Your task to perform on an android device: Go to Android settings Image 0: 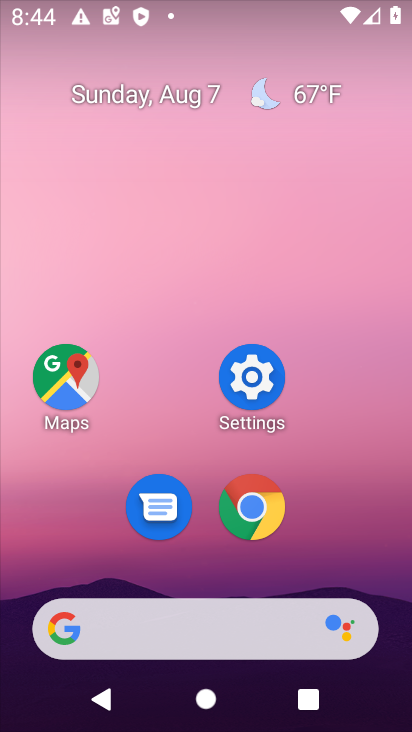
Step 0: press home button
Your task to perform on an android device: Go to Android settings Image 1: 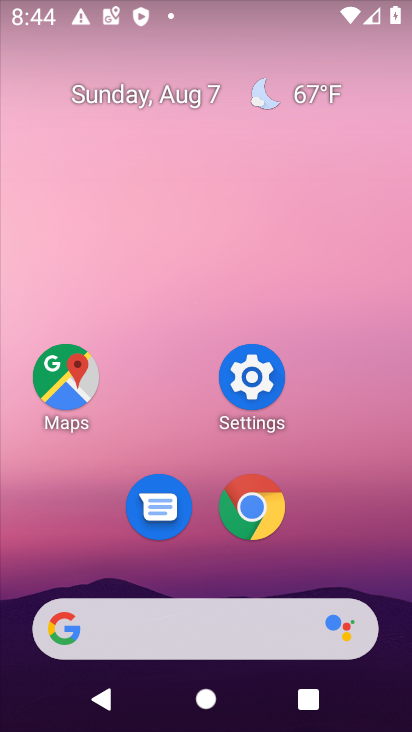
Step 1: click (251, 376)
Your task to perform on an android device: Go to Android settings Image 2: 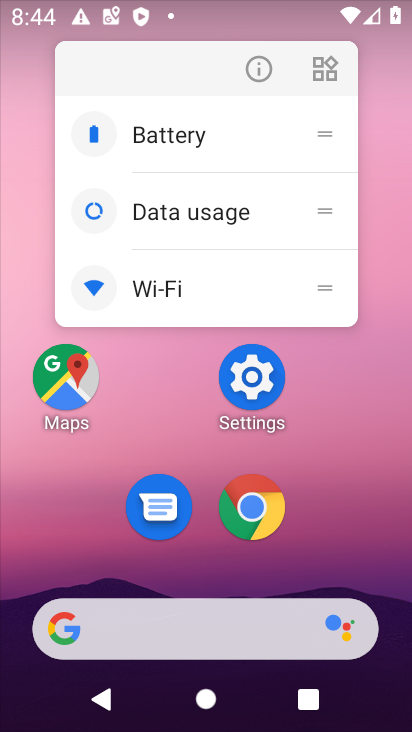
Step 2: click (251, 377)
Your task to perform on an android device: Go to Android settings Image 3: 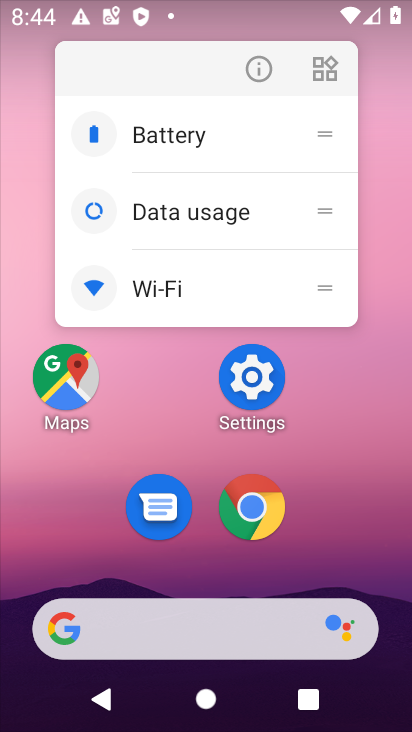
Step 3: click (244, 372)
Your task to perform on an android device: Go to Android settings Image 4: 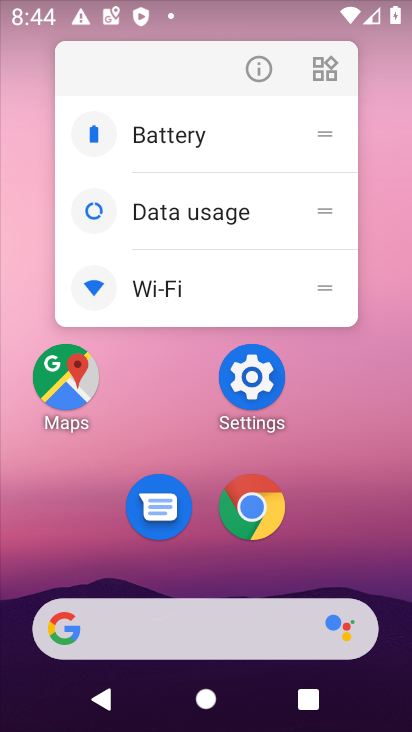
Step 4: click (244, 372)
Your task to perform on an android device: Go to Android settings Image 5: 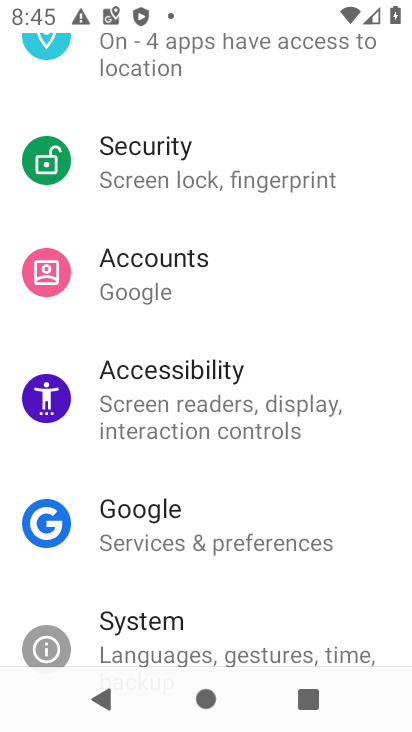
Step 5: task complete